Your task to perform on an android device: turn off data saver in the chrome app Image 0: 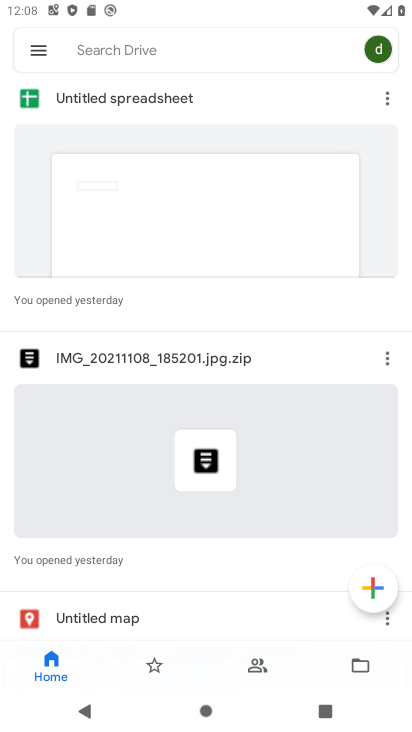
Step 0: press back button
Your task to perform on an android device: turn off data saver in the chrome app Image 1: 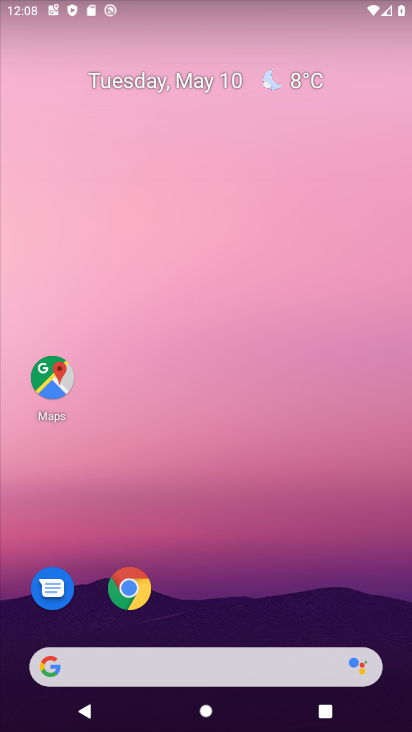
Step 1: drag from (188, 637) to (379, 18)
Your task to perform on an android device: turn off data saver in the chrome app Image 2: 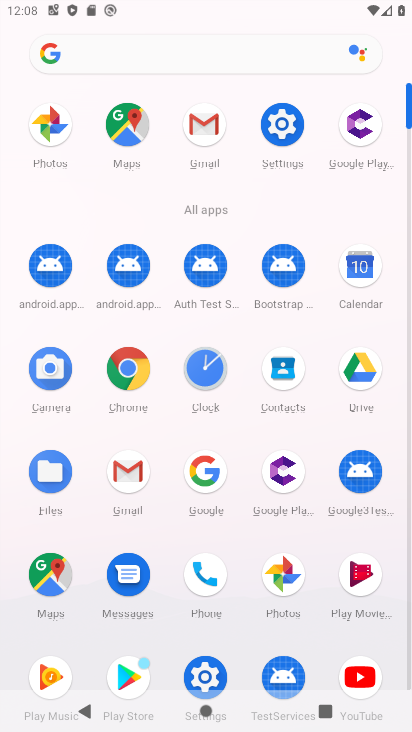
Step 2: click (129, 364)
Your task to perform on an android device: turn off data saver in the chrome app Image 3: 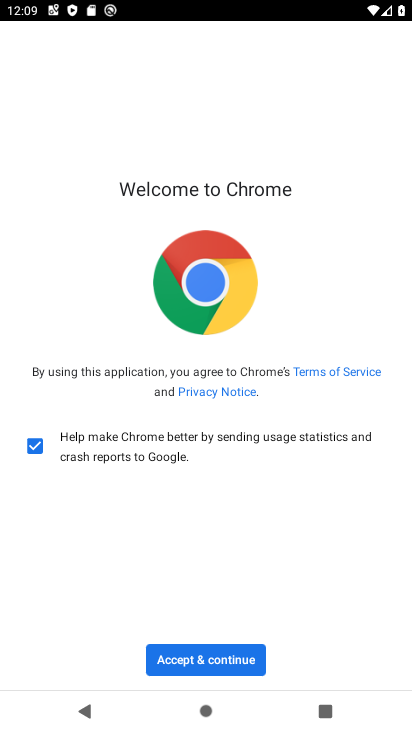
Step 3: click (221, 661)
Your task to perform on an android device: turn off data saver in the chrome app Image 4: 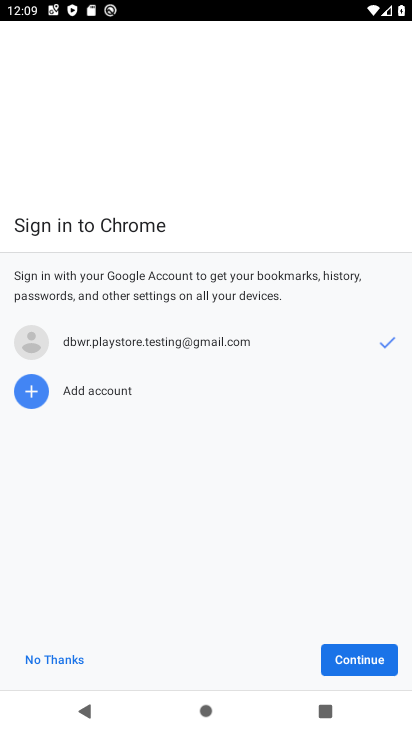
Step 4: click (365, 654)
Your task to perform on an android device: turn off data saver in the chrome app Image 5: 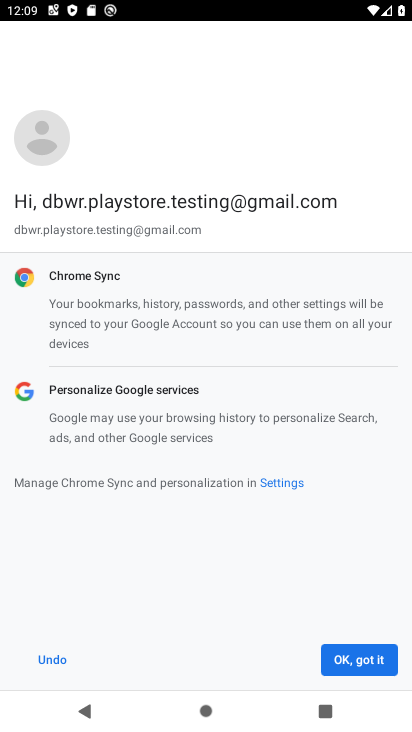
Step 5: click (367, 656)
Your task to perform on an android device: turn off data saver in the chrome app Image 6: 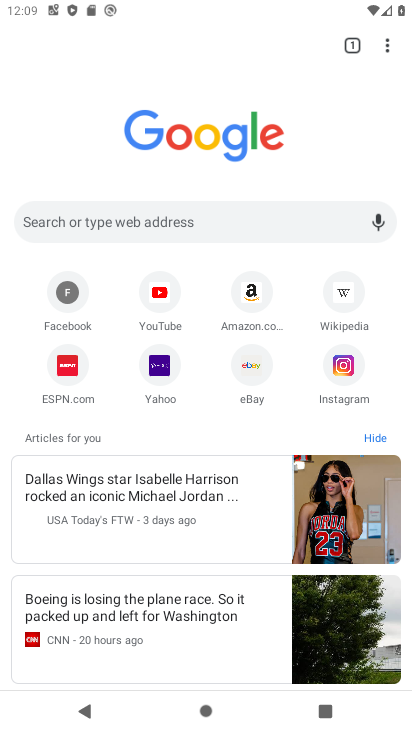
Step 6: drag from (397, 42) to (289, 385)
Your task to perform on an android device: turn off data saver in the chrome app Image 7: 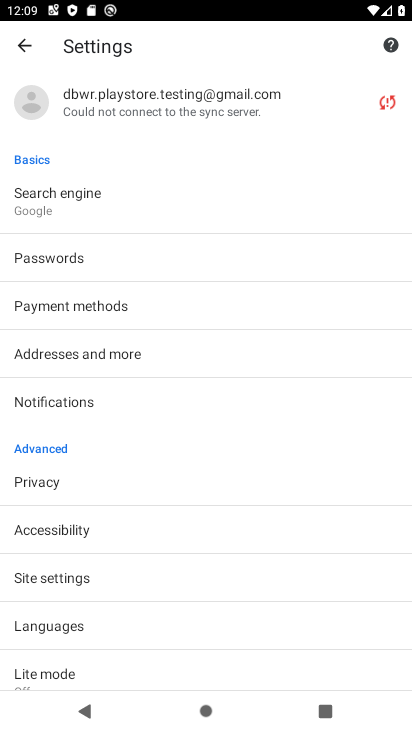
Step 7: drag from (182, 647) to (257, 358)
Your task to perform on an android device: turn off data saver in the chrome app Image 8: 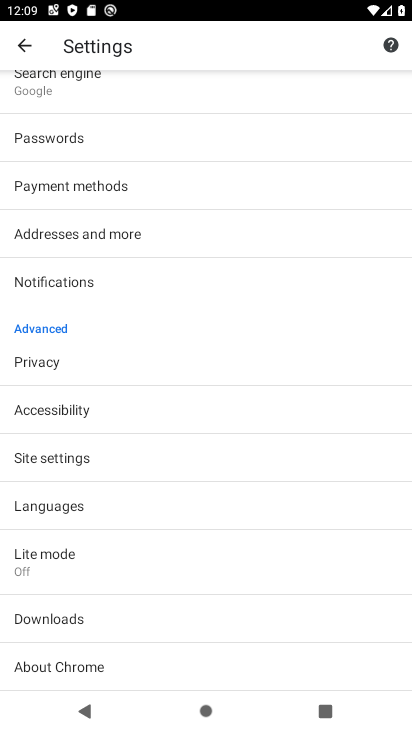
Step 8: click (99, 566)
Your task to perform on an android device: turn off data saver in the chrome app Image 9: 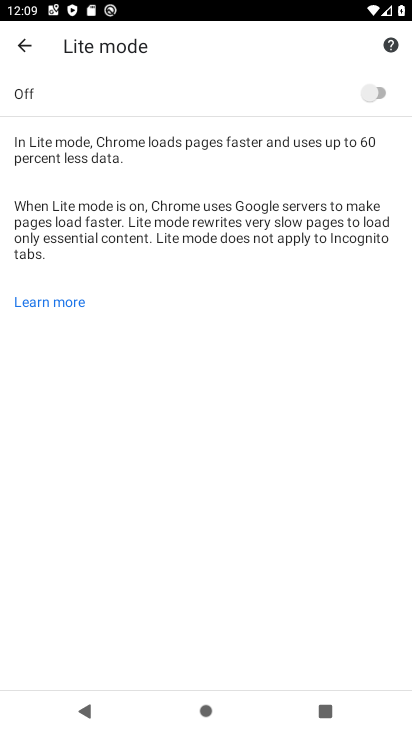
Step 9: task complete